Your task to perform on an android device: Go to Maps Image 0: 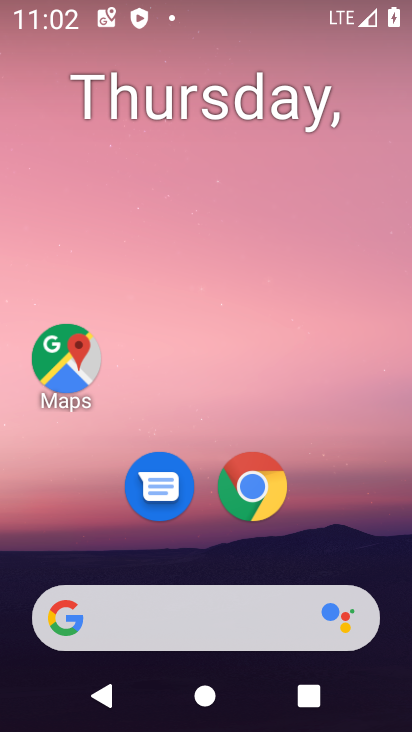
Step 0: click (64, 359)
Your task to perform on an android device: Go to Maps Image 1: 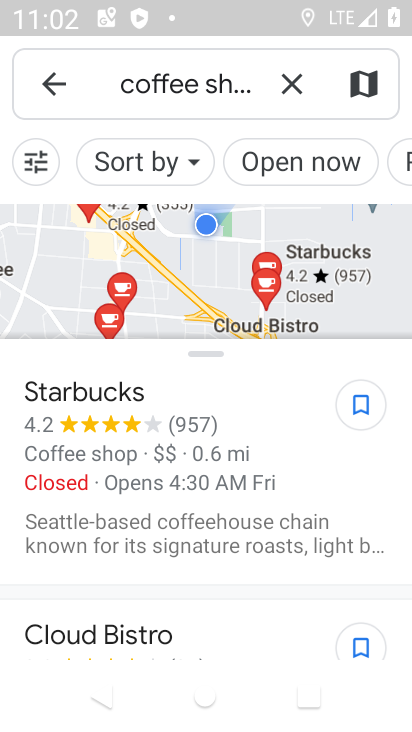
Step 1: task complete